Your task to perform on an android device: Open calendar and show me the first week of next month Image 0: 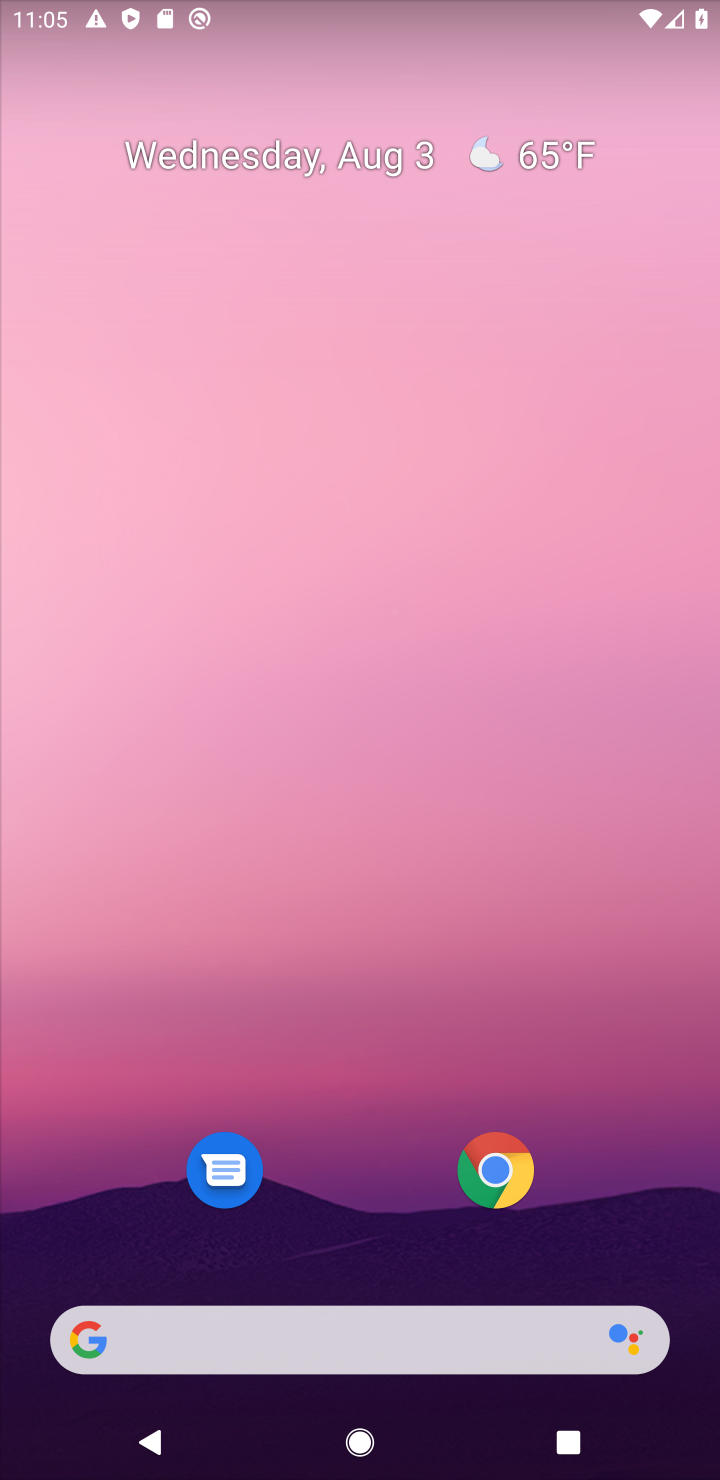
Step 0: drag from (313, 1275) to (365, 138)
Your task to perform on an android device: Open calendar and show me the first week of next month Image 1: 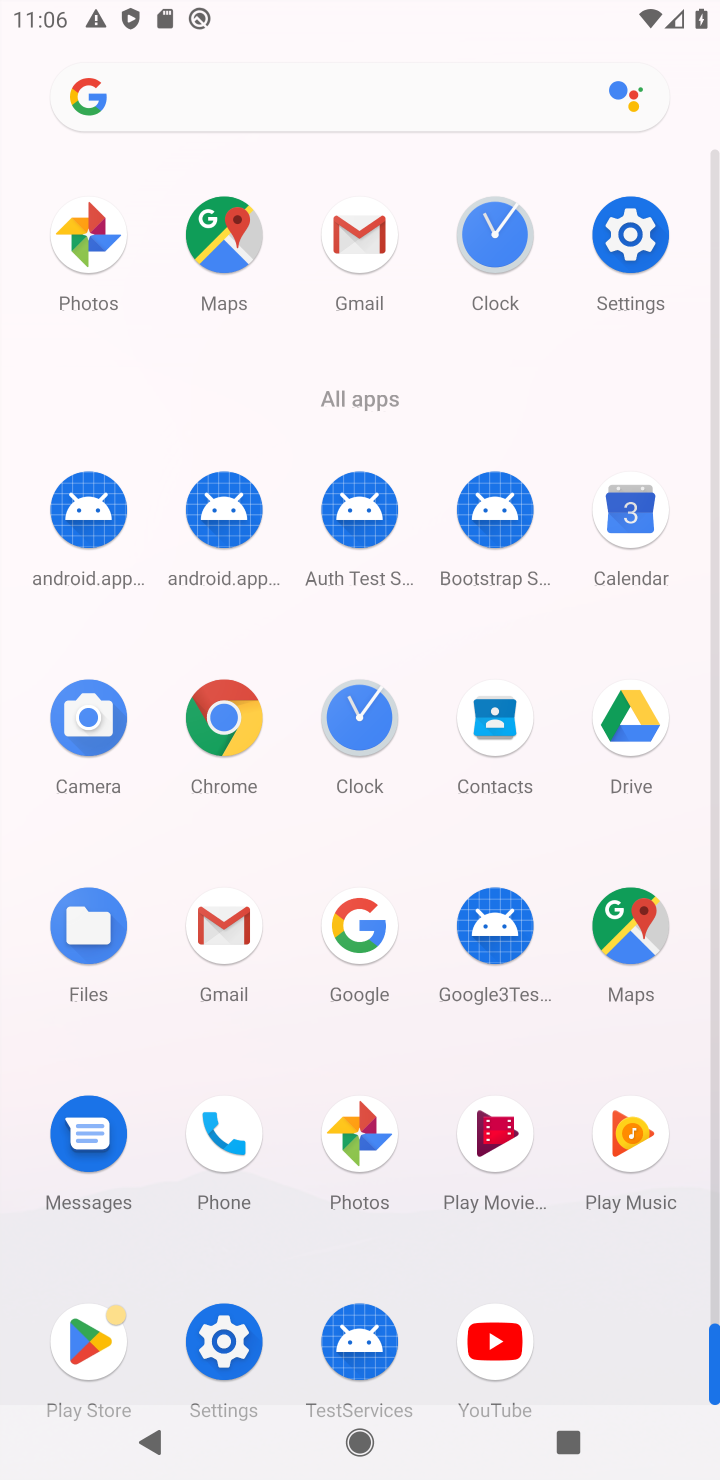
Step 1: click (633, 497)
Your task to perform on an android device: Open calendar and show me the first week of next month Image 2: 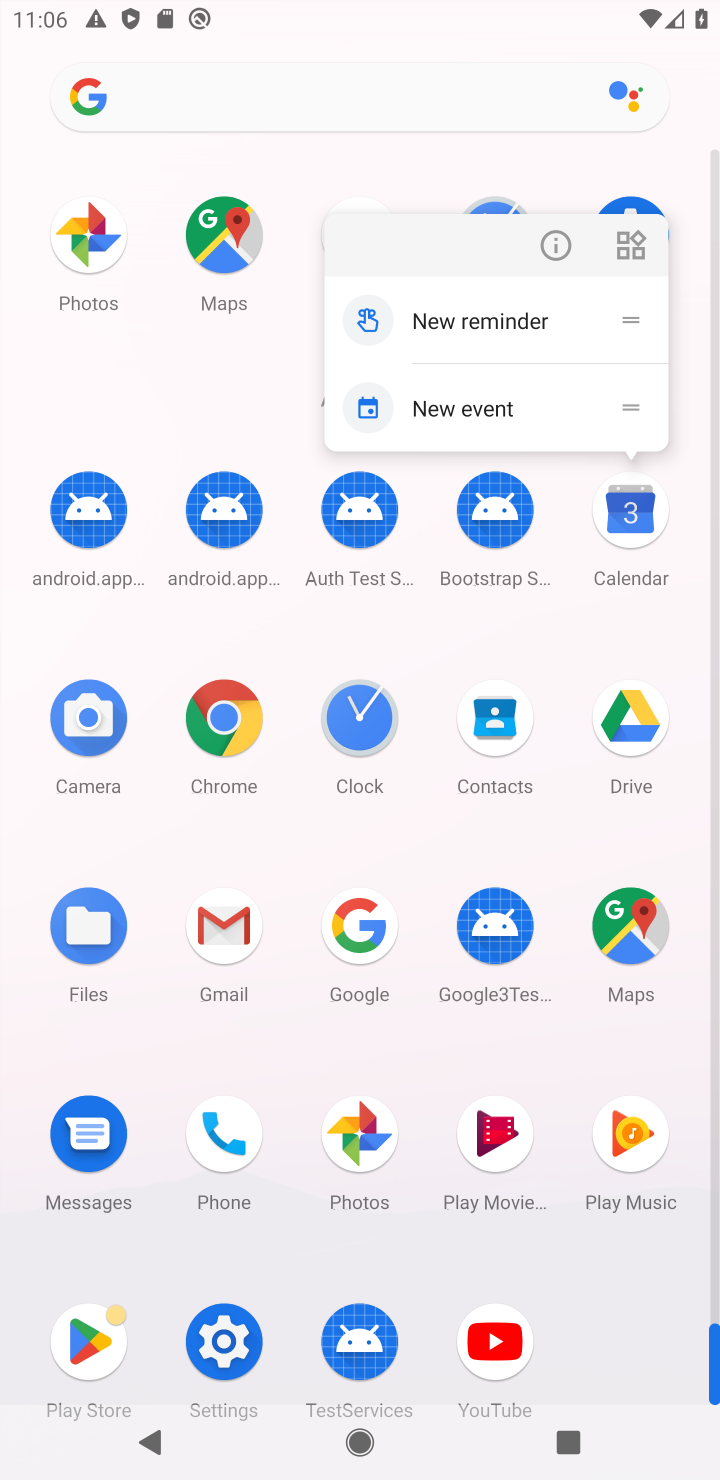
Step 2: click (537, 227)
Your task to perform on an android device: Open calendar and show me the first week of next month Image 3: 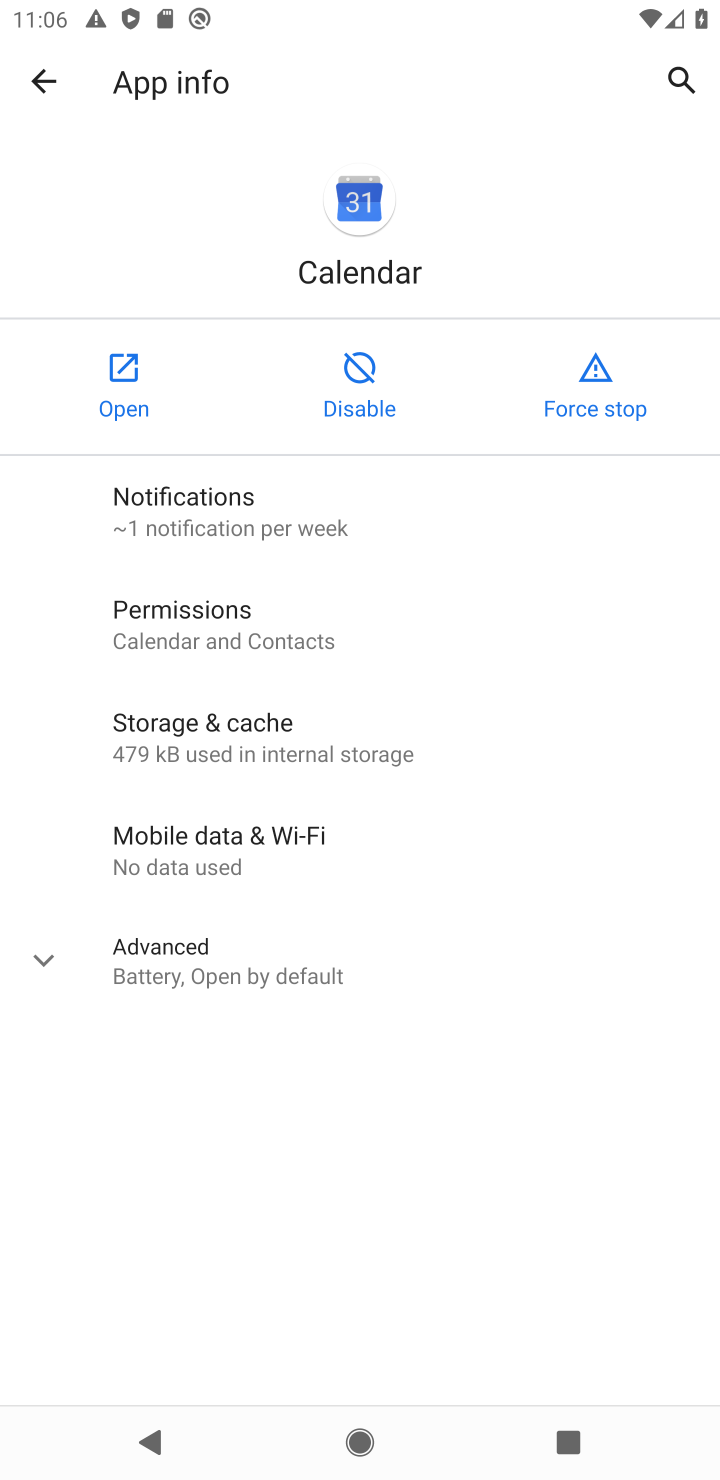
Step 3: click (133, 393)
Your task to perform on an android device: Open calendar and show me the first week of next month Image 4: 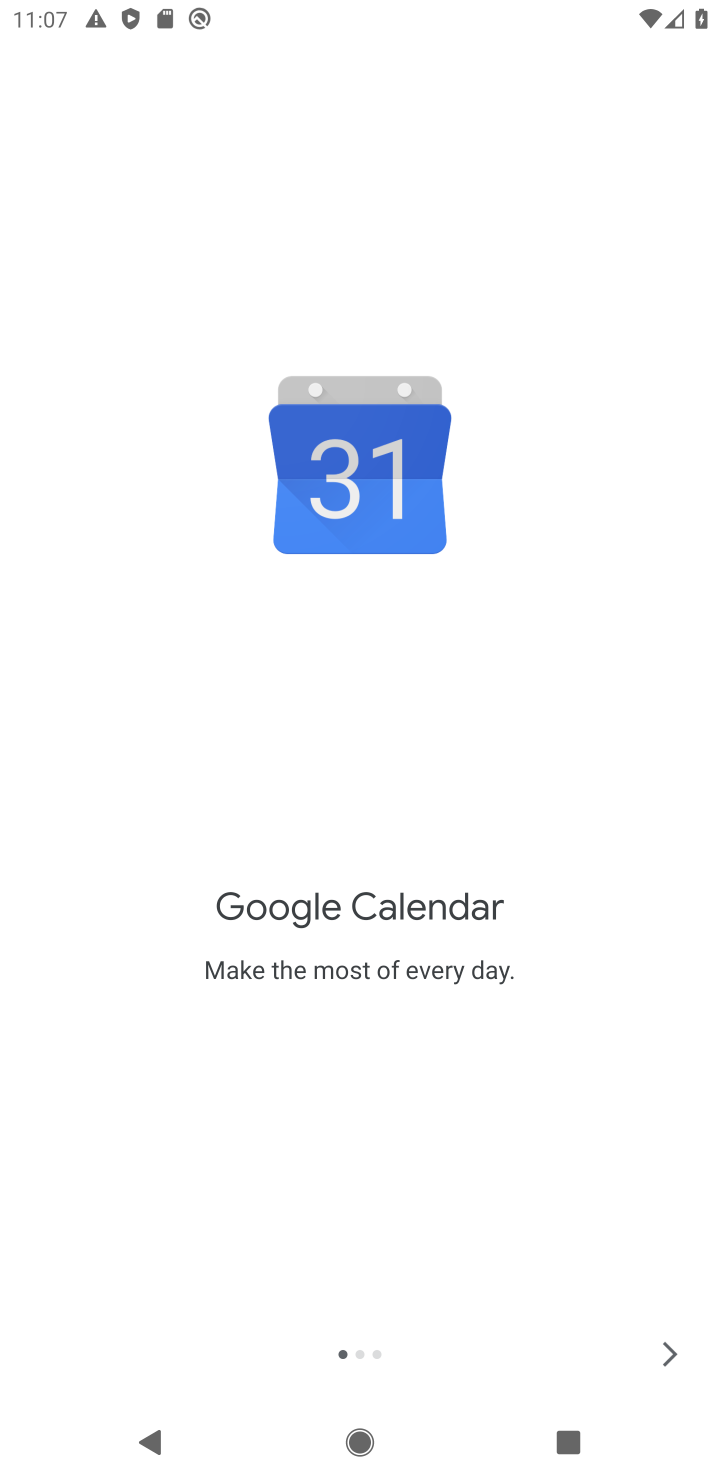
Step 4: click (677, 1334)
Your task to perform on an android device: Open calendar and show me the first week of next month Image 5: 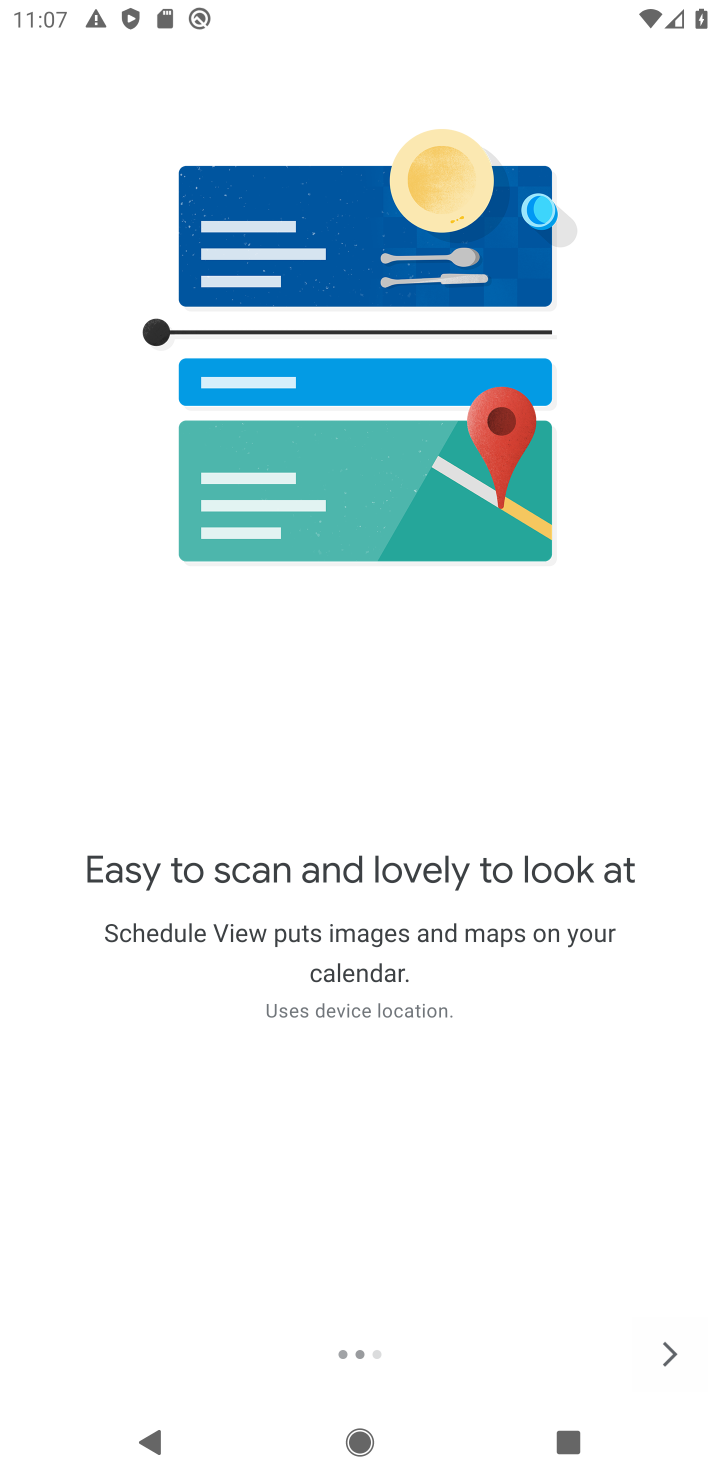
Step 5: click (669, 1343)
Your task to perform on an android device: Open calendar and show me the first week of next month Image 6: 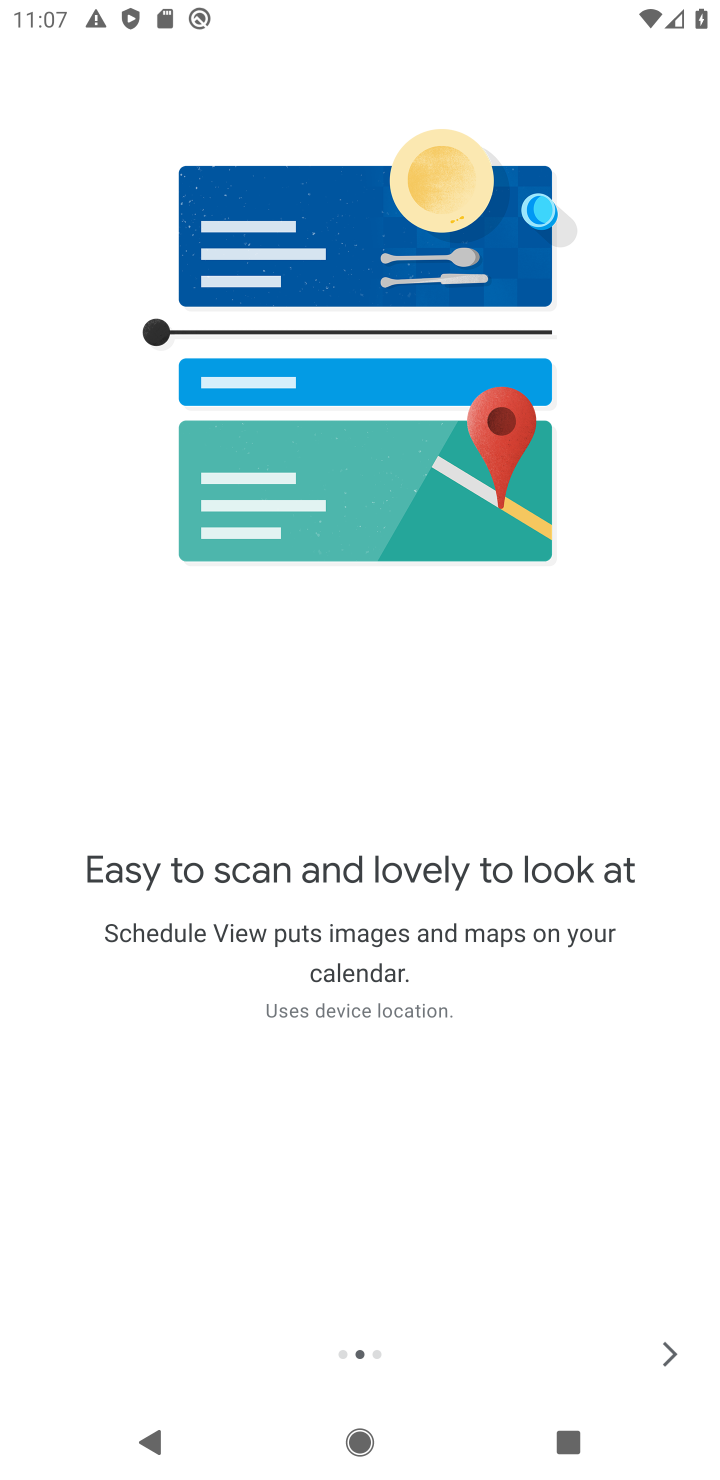
Step 6: click (667, 1345)
Your task to perform on an android device: Open calendar and show me the first week of next month Image 7: 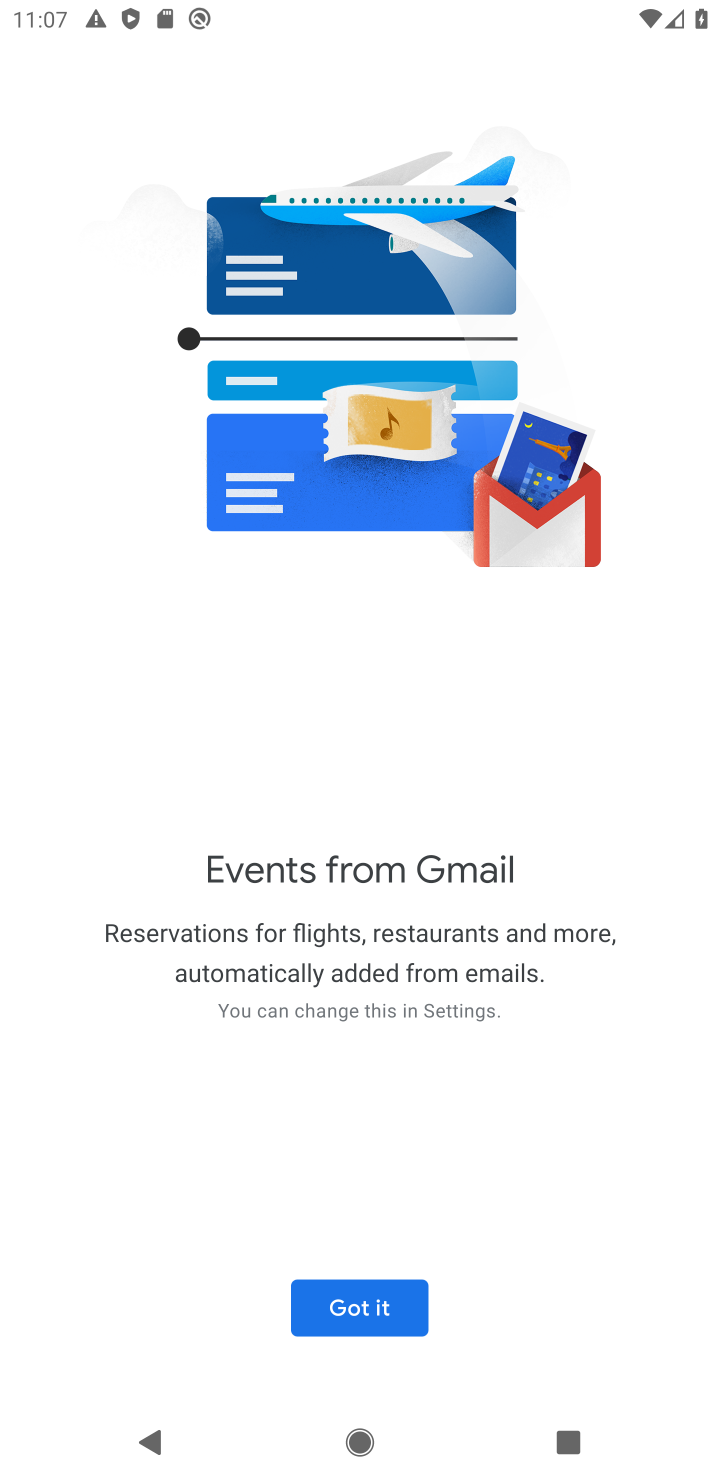
Step 7: click (280, 1318)
Your task to perform on an android device: Open calendar and show me the first week of next month Image 8: 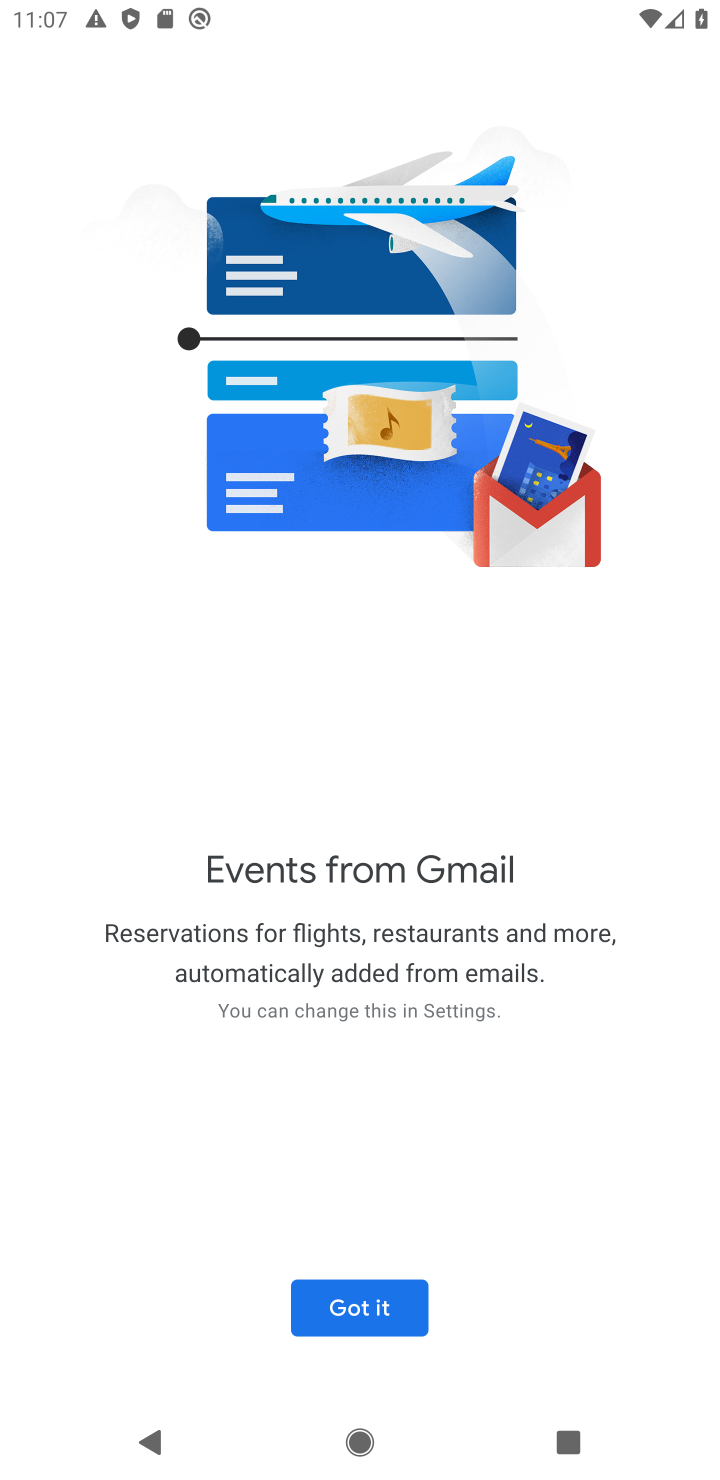
Step 8: click (315, 1303)
Your task to perform on an android device: Open calendar and show me the first week of next month Image 9: 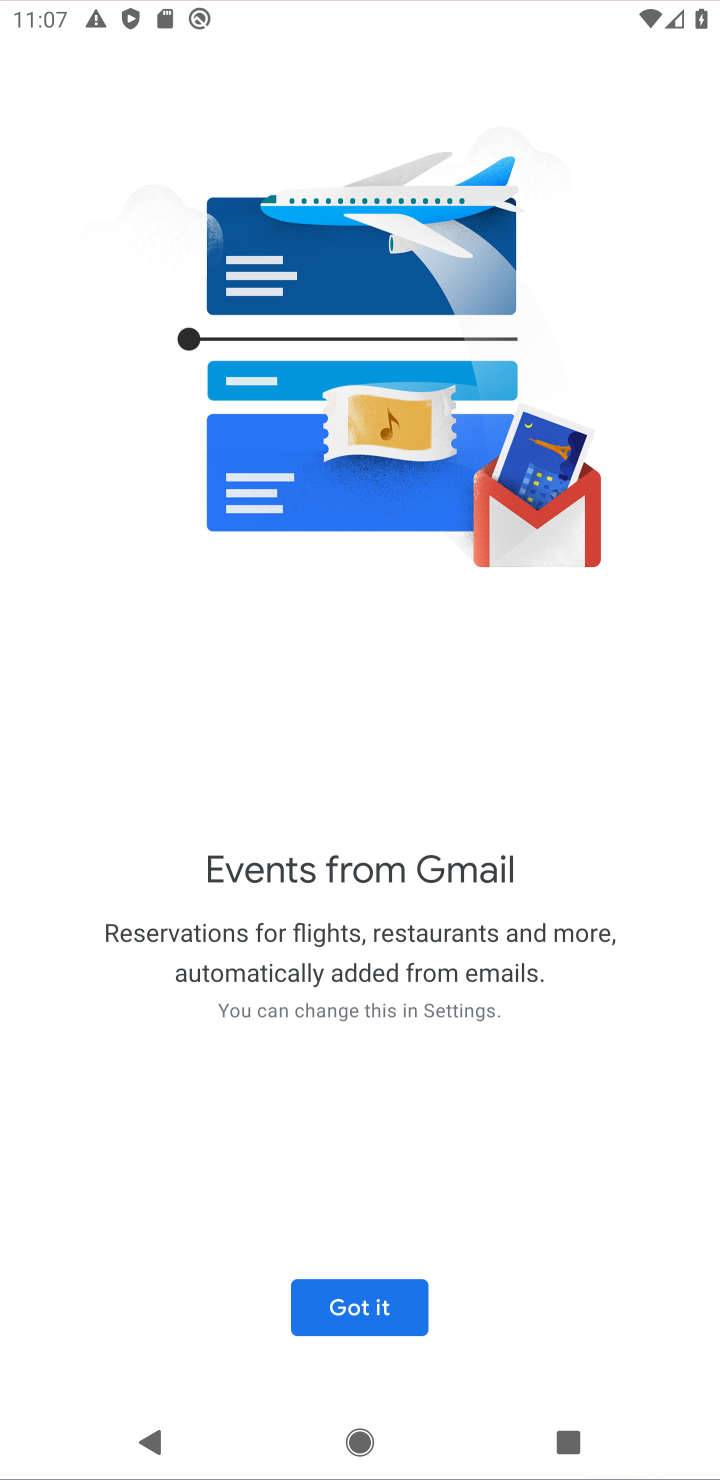
Step 9: drag from (371, 1113) to (503, 347)
Your task to perform on an android device: Open calendar and show me the first week of next month Image 10: 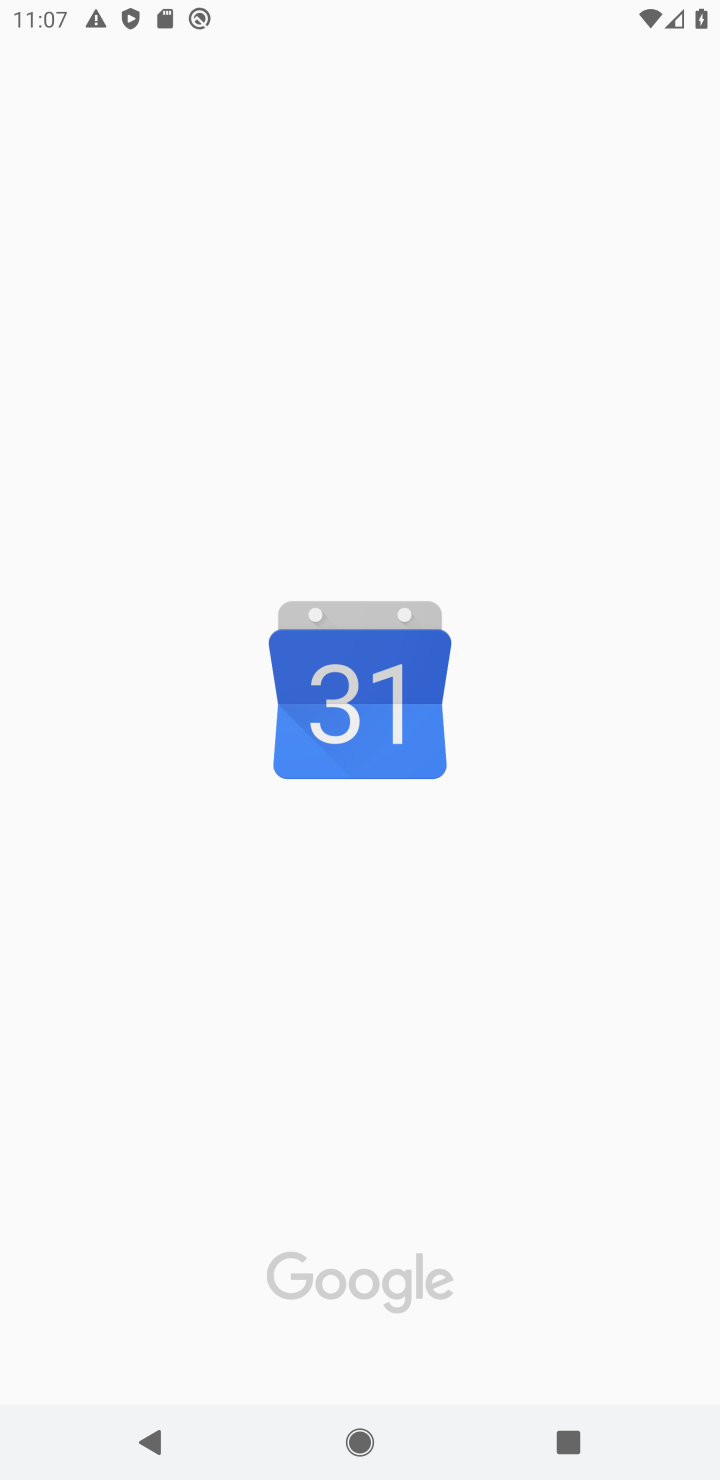
Step 10: drag from (355, 1168) to (465, 416)
Your task to perform on an android device: Open calendar and show me the first week of next month Image 11: 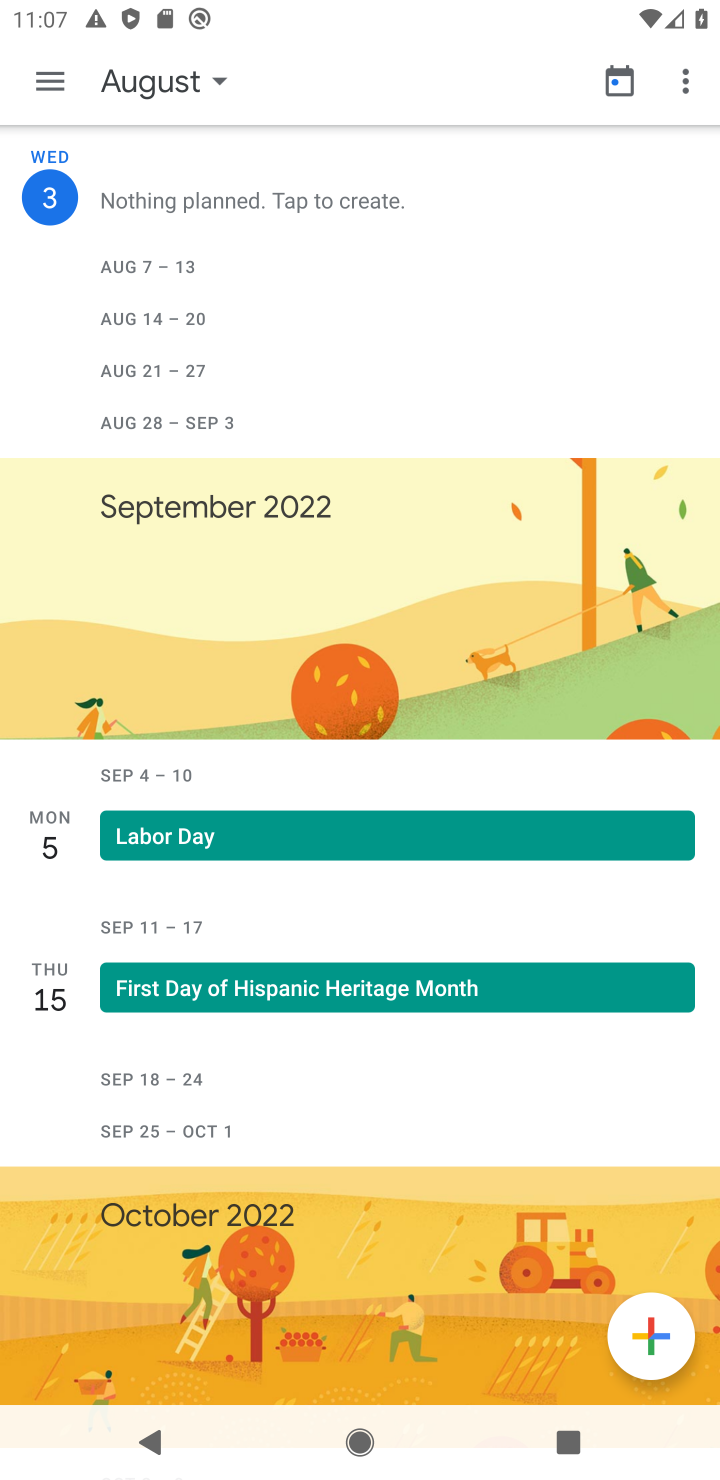
Step 11: drag from (473, 1055) to (450, 570)
Your task to perform on an android device: Open calendar and show me the first week of next month Image 12: 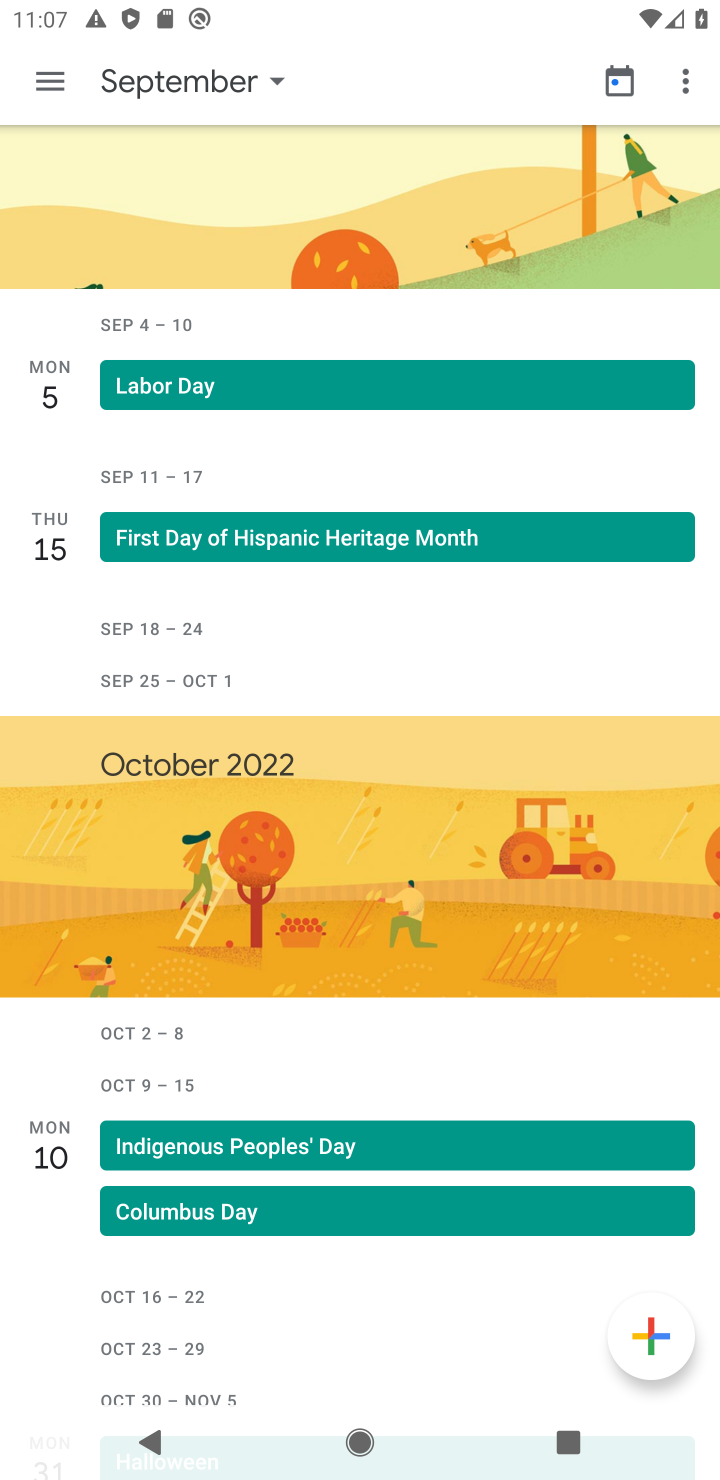
Step 12: drag from (401, 628) to (538, 1237)
Your task to perform on an android device: Open calendar and show me the first week of next month Image 13: 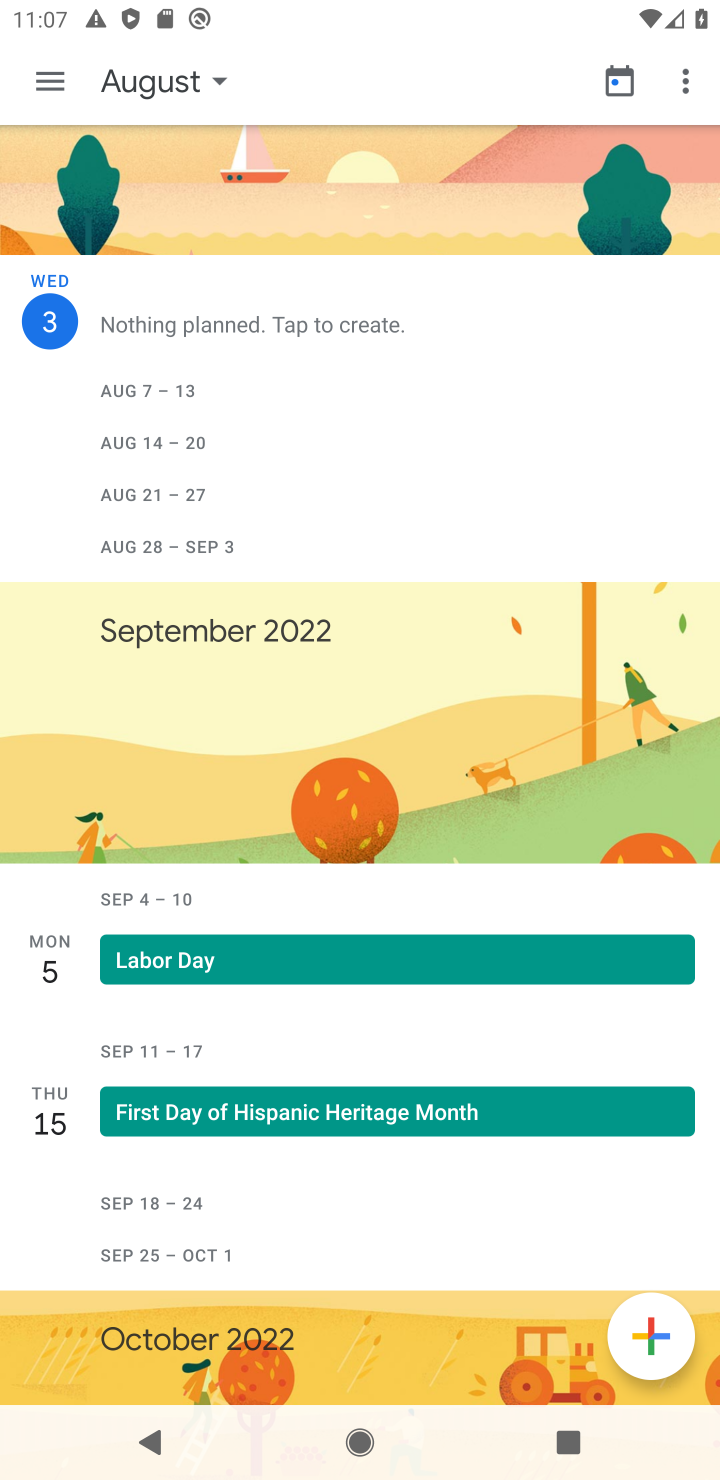
Step 13: drag from (612, 93) to (161, 76)
Your task to perform on an android device: Open calendar and show me the first week of next month Image 14: 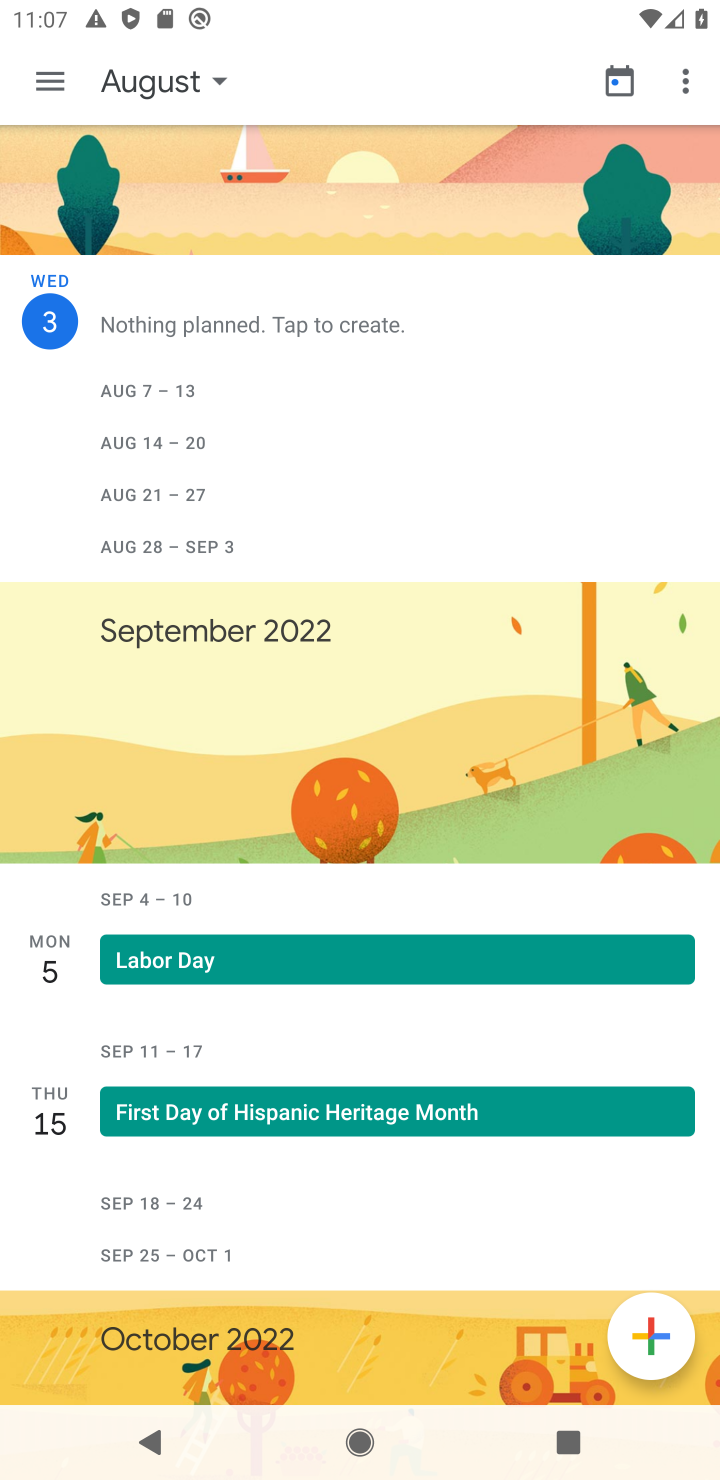
Step 14: click (206, 81)
Your task to perform on an android device: Open calendar and show me the first week of next month Image 15: 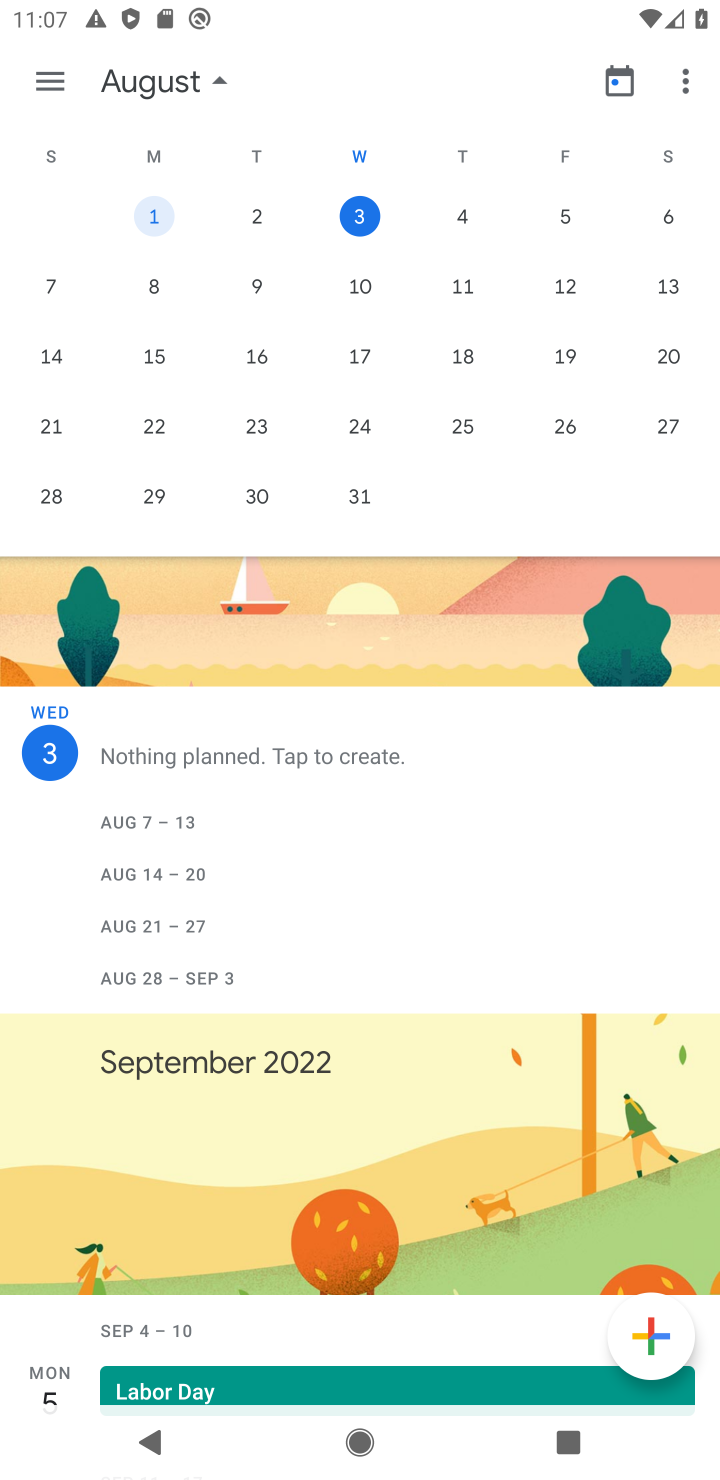
Step 15: drag from (106, 331) to (114, 569)
Your task to perform on an android device: Open calendar and show me the first week of next month Image 16: 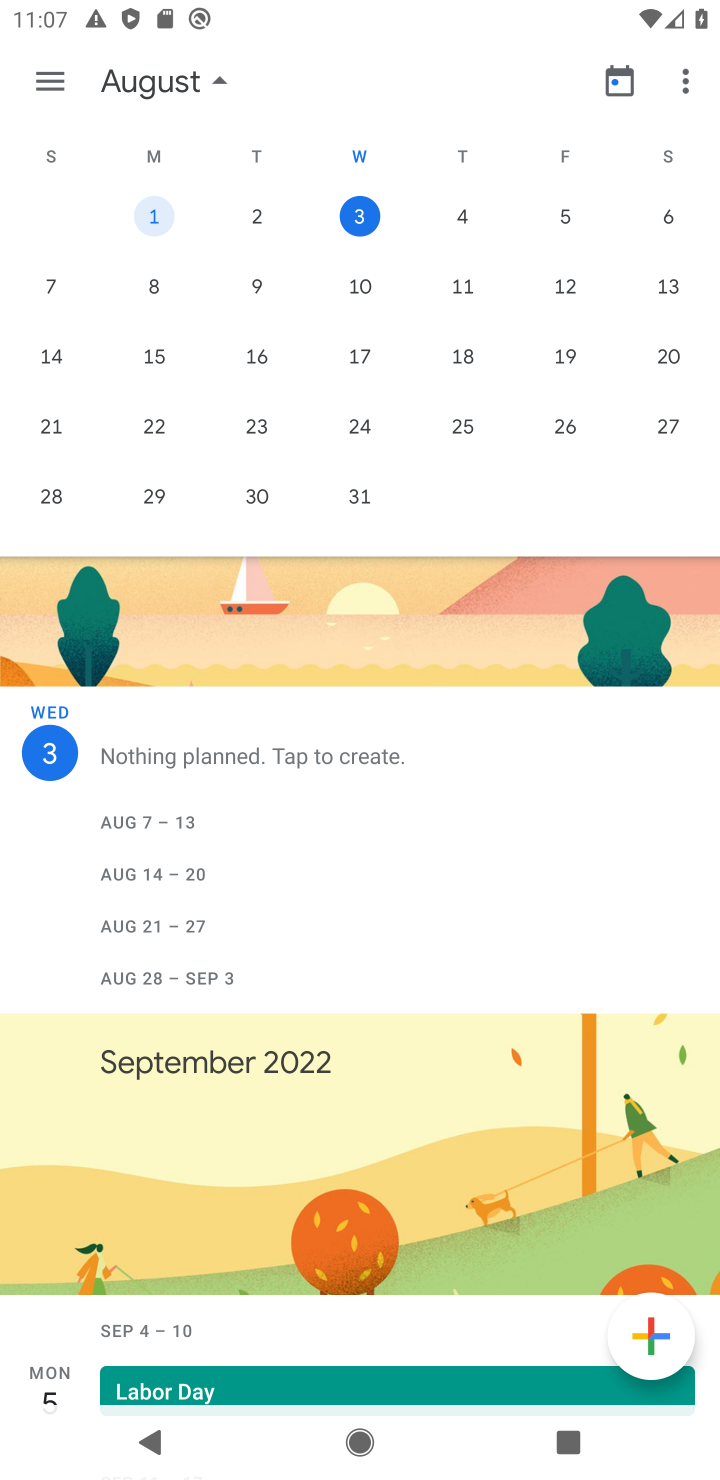
Step 16: drag from (631, 444) to (1, 559)
Your task to perform on an android device: Open calendar and show me the first week of next month Image 17: 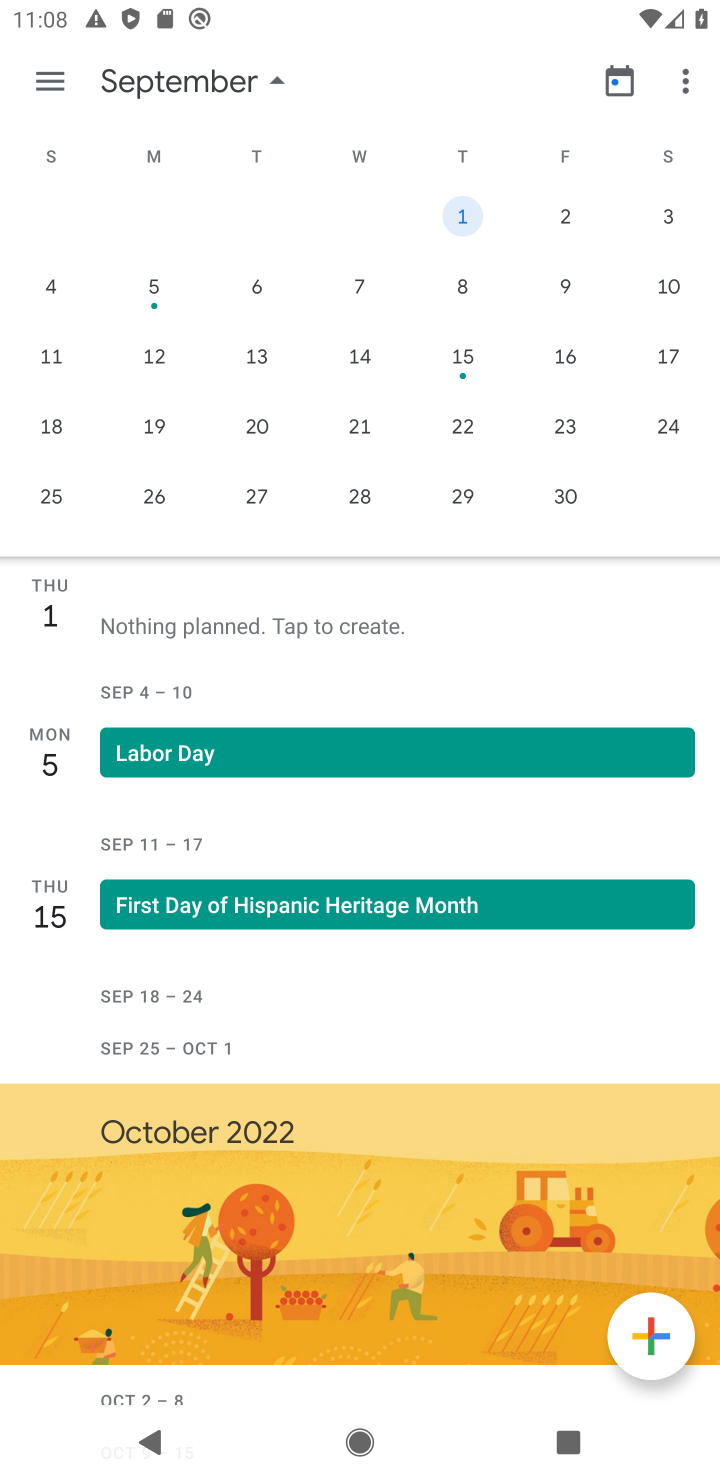
Step 17: click (561, 213)
Your task to perform on an android device: Open calendar and show me the first week of next month Image 18: 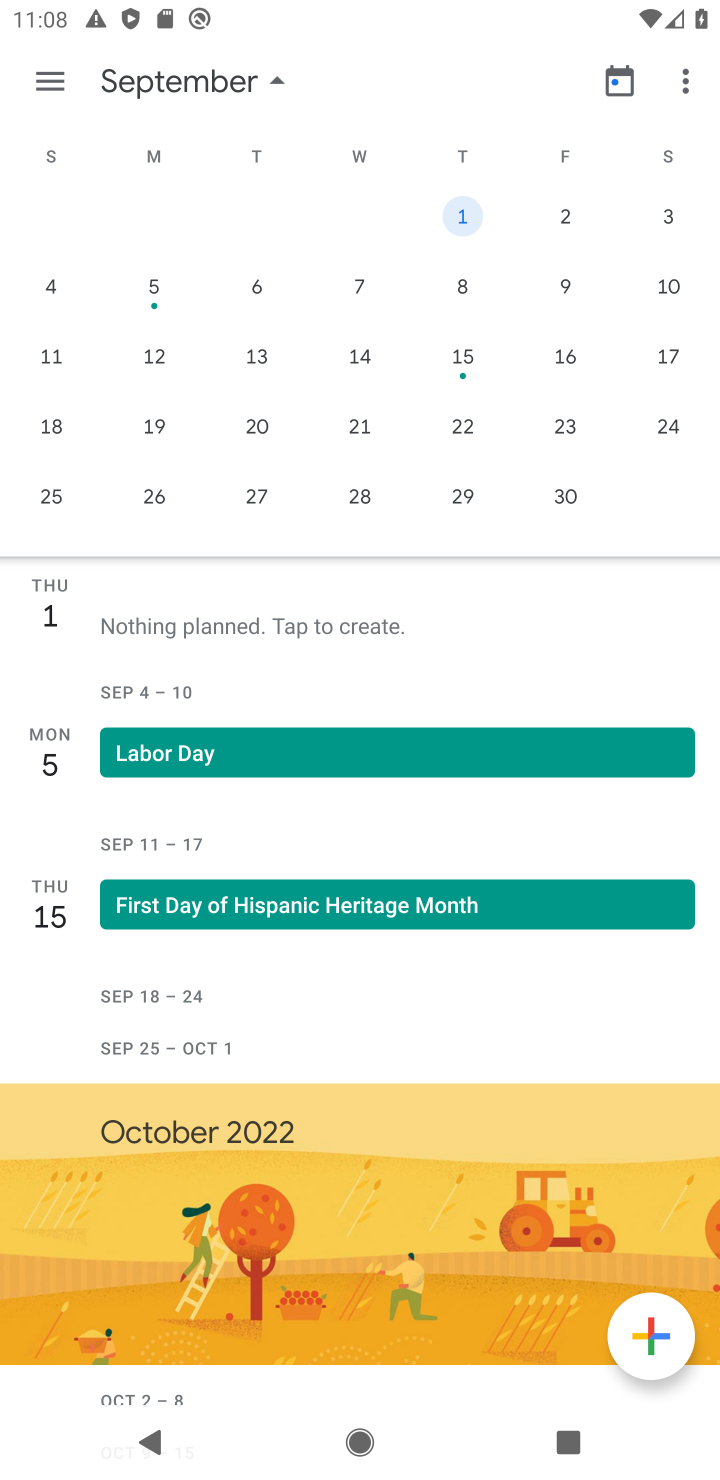
Step 18: click (570, 217)
Your task to perform on an android device: Open calendar and show me the first week of next month Image 19: 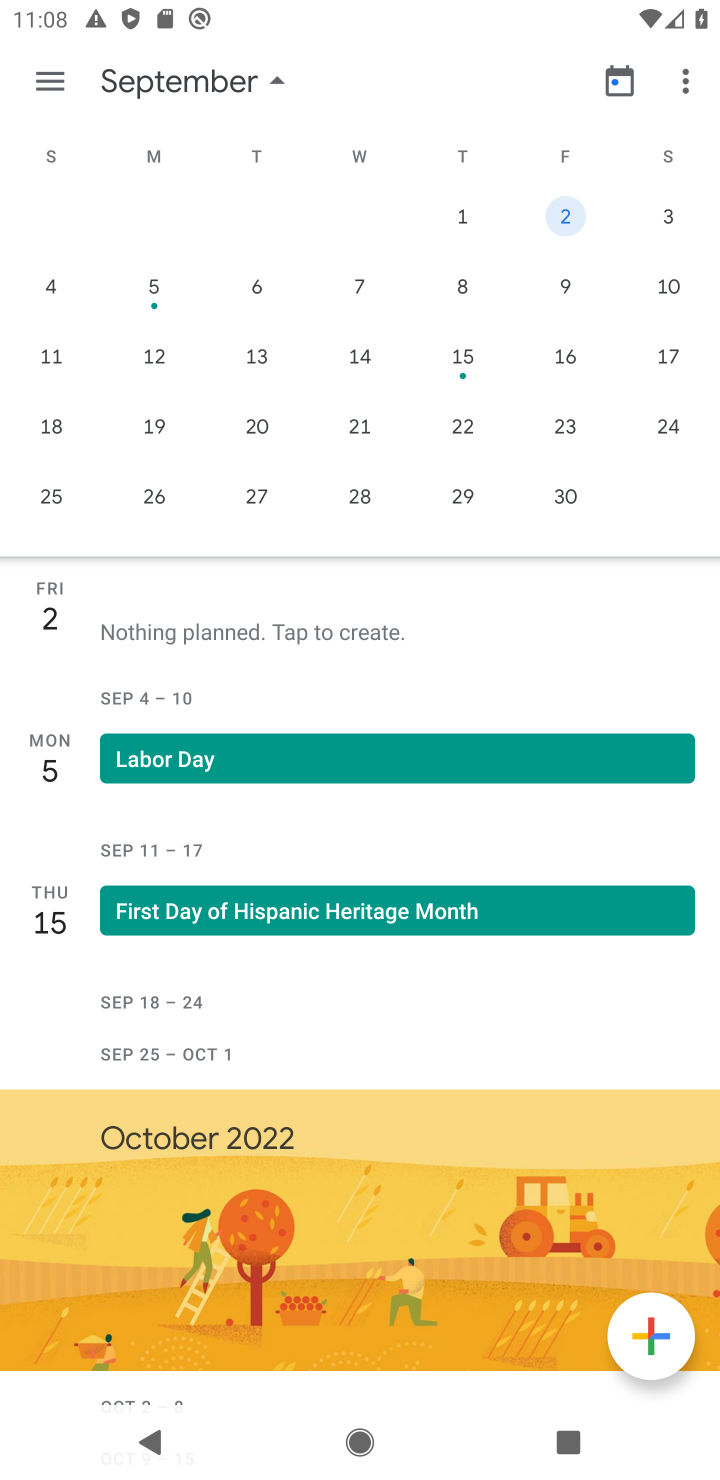
Step 19: task complete